Your task to perform on an android device: Search for "razer nari" on ebay, select the first entry, add it to the cart, then select checkout. Image 0: 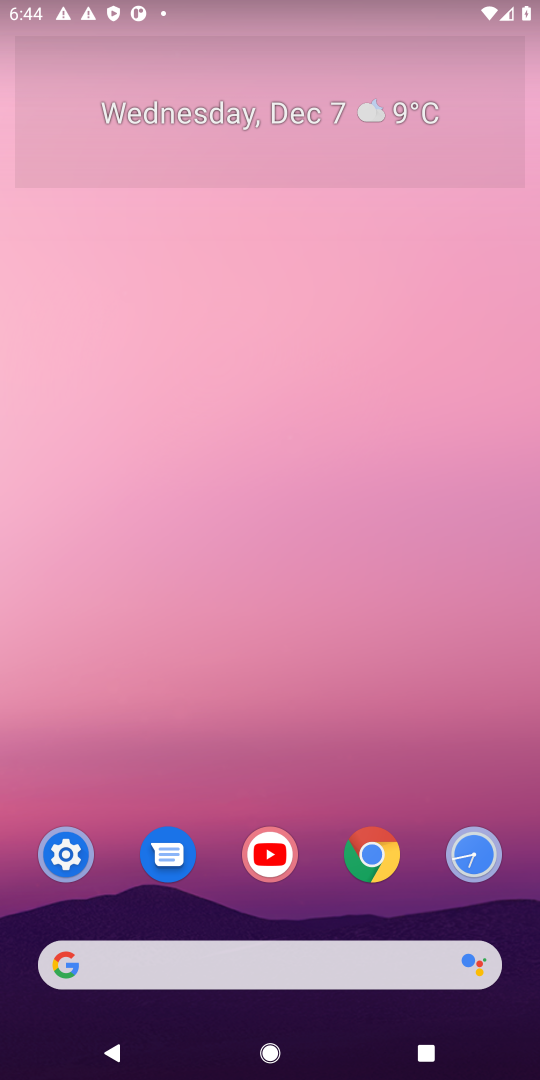
Step 0: click (209, 969)
Your task to perform on an android device: Search for "razer nari" on ebay, select the first entry, add it to the cart, then select checkout. Image 1: 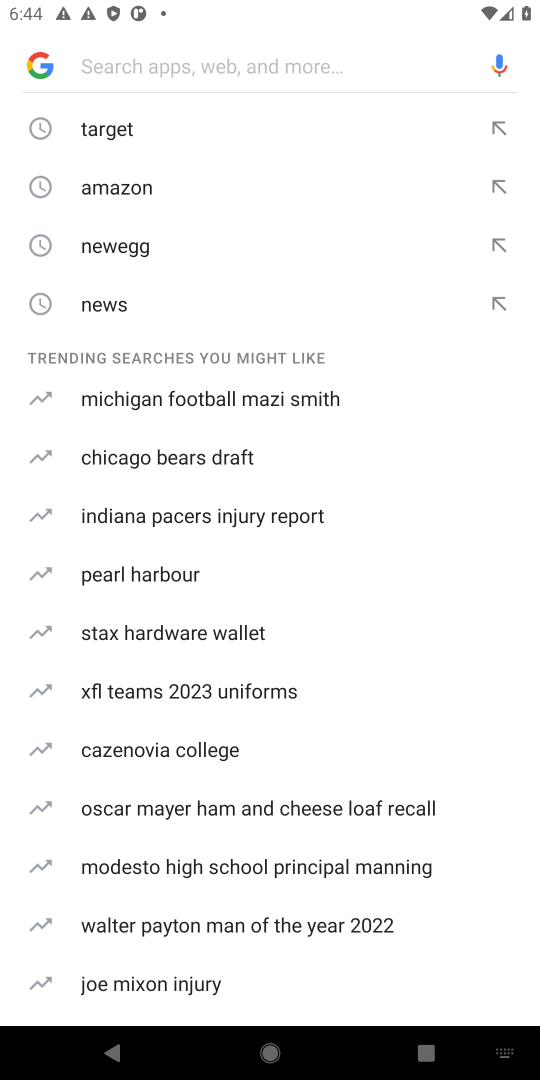
Step 1: type "ebay"
Your task to perform on an android device: Search for "razer nari" on ebay, select the first entry, add it to the cart, then select checkout. Image 2: 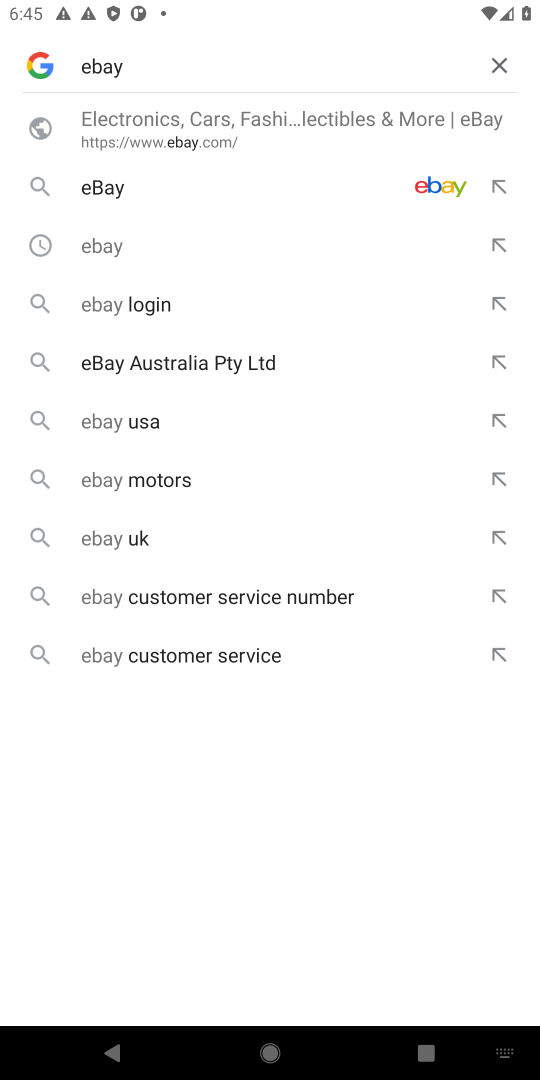
Step 2: click (167, 171)
Your task to perform on an android device: Search for "razer nari" on ebay, select the first entry, add it to the cart, then select checkout. Image 3: 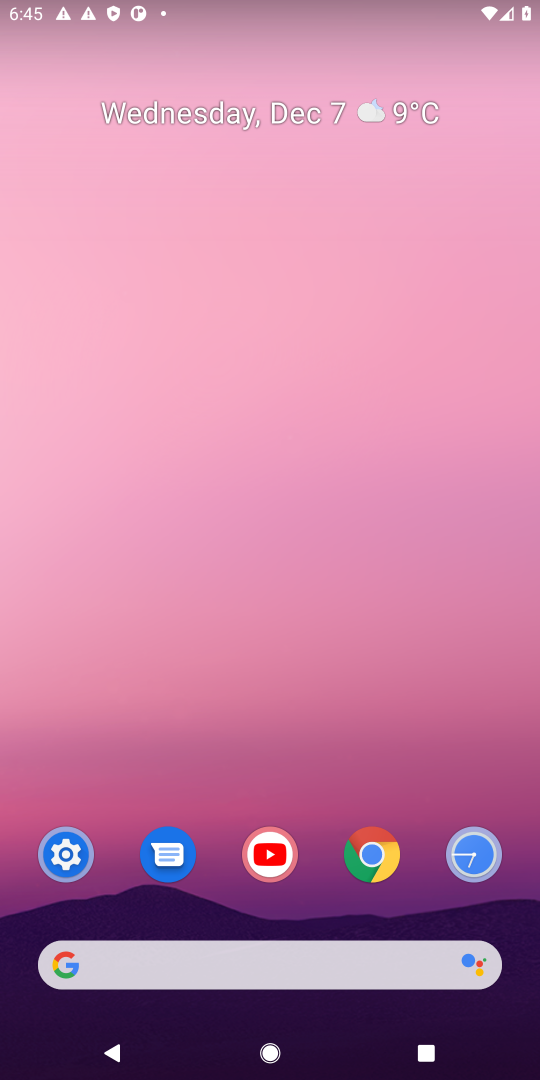
Step 3: click (304, 949)
Your task to perform on an android device: Search for "razer nari" on ebay, select the first entry, add it to the cart, then select checkout. Image 4: 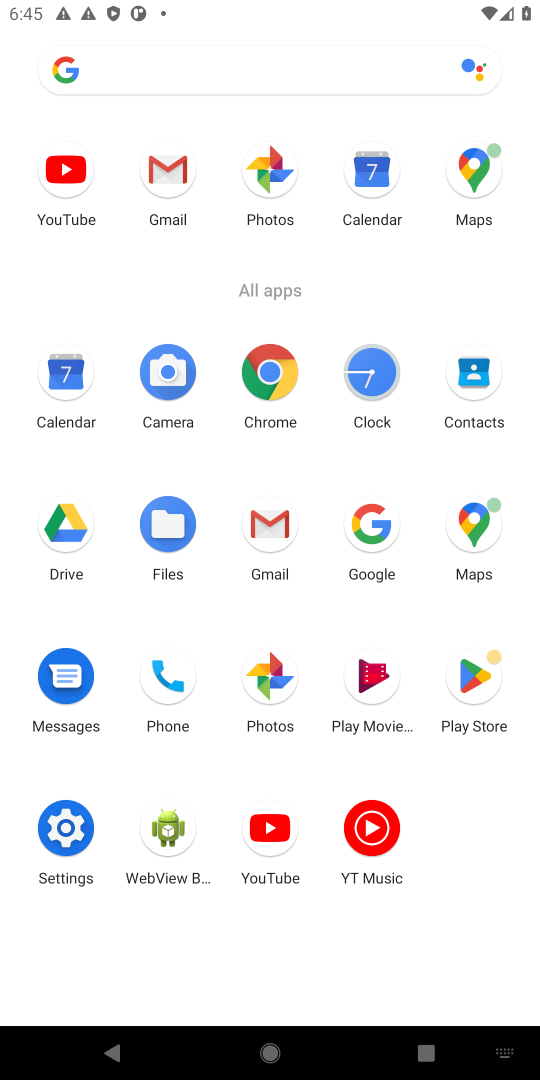
Step 4: click (265, 359)
Your task to perform on an android device: Search for "razer nari" on ebay, select the first entry, add it to the cart, then select checkout. Image 5: 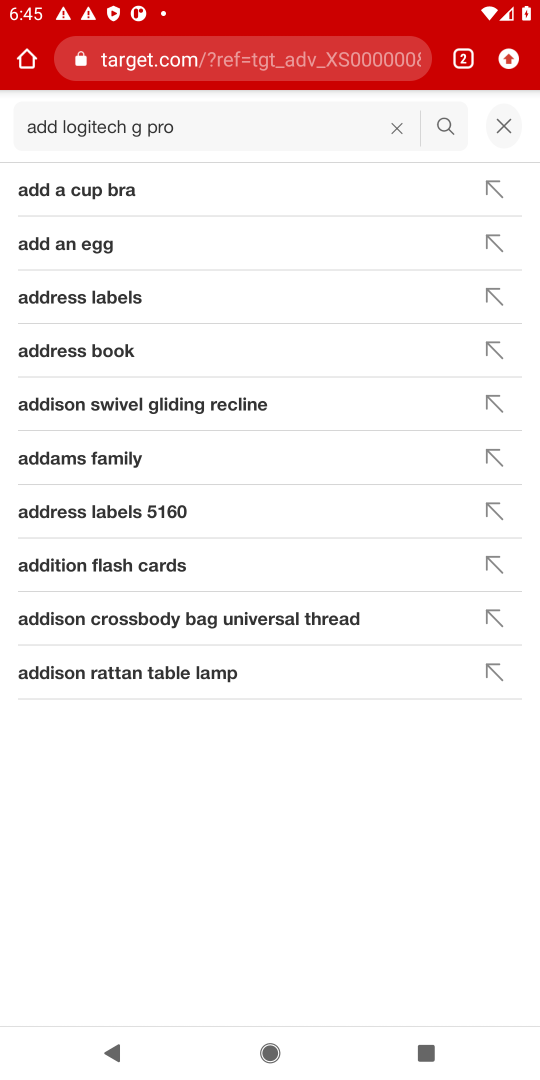
Step 5: task complete